Your task to perform on an android device: set an alarm Image 0: 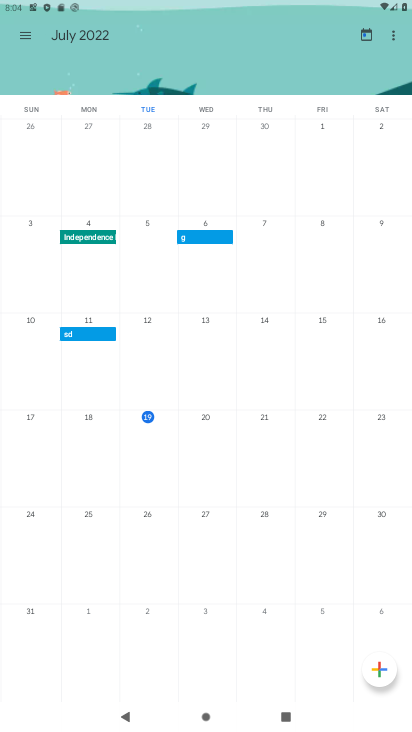
Step 0: press home button
Your task to perform on an android device: set an alarm Image 1: 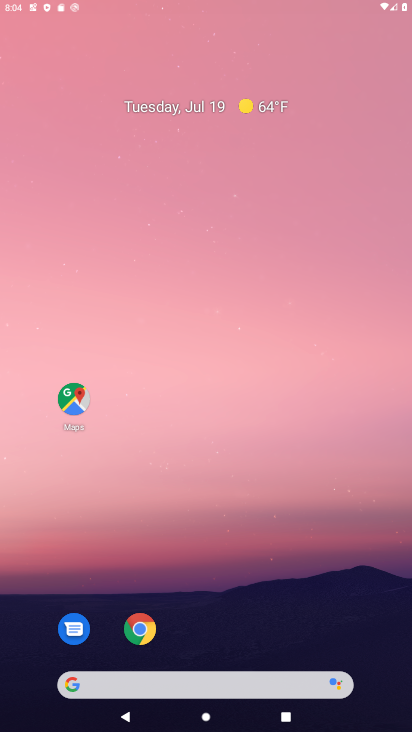
Step 1: drag from (154, 642) to (270, 122)
Your task to perform on an android device: set an alarm Image 2: 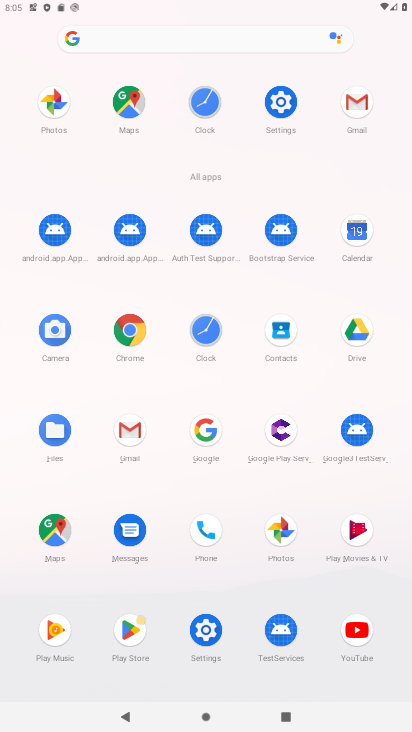
Step 2: click (208, 325)
Your task to perform on an android device: set an alarm Image 3: 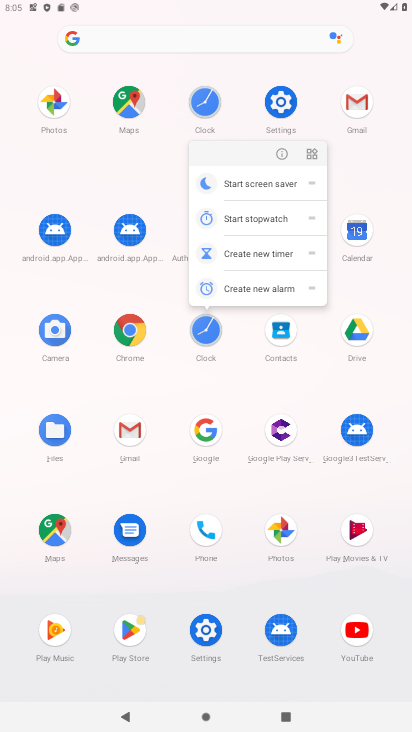
Step 3: click (278, 154)
Your task to perform on an android device: set an alarm Image 4: 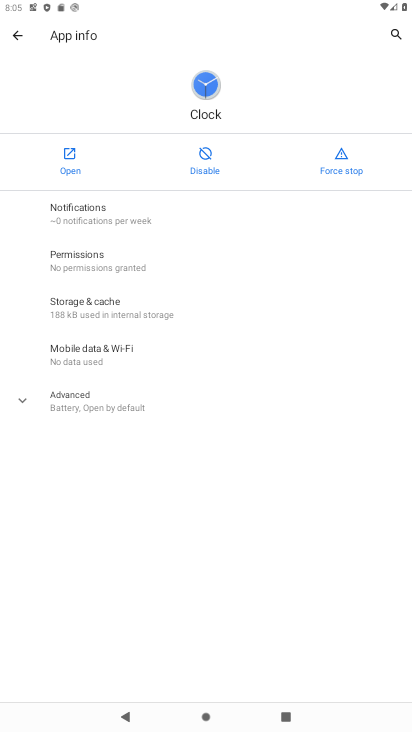
Step 4: click (81, 148)
Your task to perform on an android device: set an alarm Image 5: 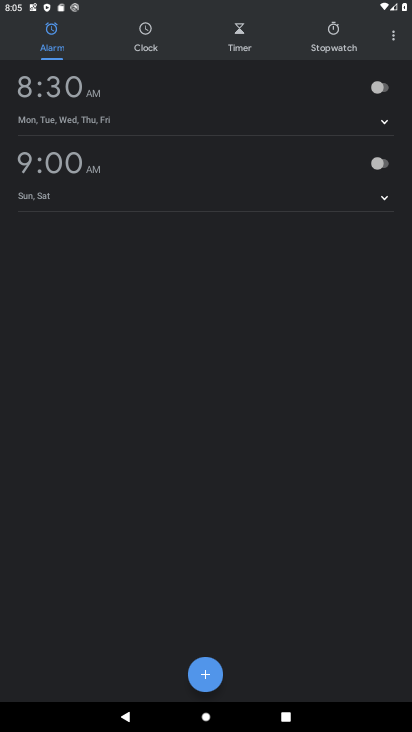
Step 5: task complete